Your task to perform on an android device: Search for sushi restaurants on Maps Image 0: 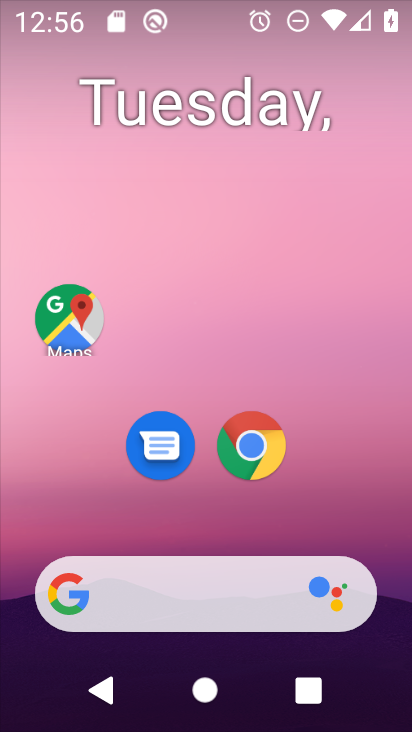
Step 0: drag from (343, 529) to (336, 169)
Your task to perform on an android device: Search for sushi restaurants on Maps Image 1: 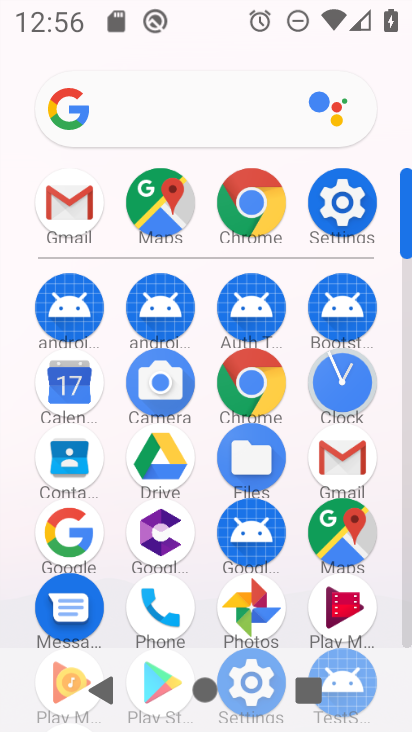
Step 1: click (166, 200)
Your task to perform on an android device: Search for sushi restaurants on Maps Image 2: 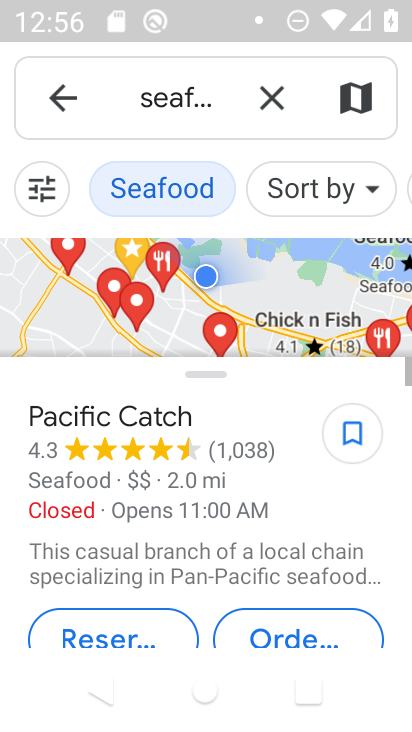
Step 2: click (254, 91)
Your task to perform on an android device: Search for sushi restaurants on Maps Image 3: 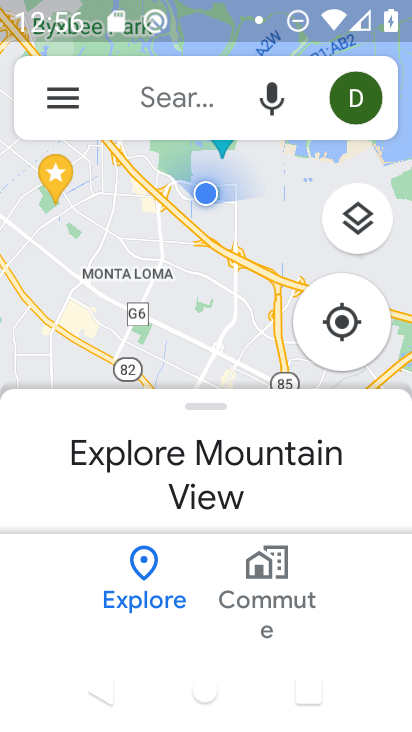
Step 3: click (168, 80)
Your task to perform on an android device: Search for sushi restaurants on Maps Image 4: 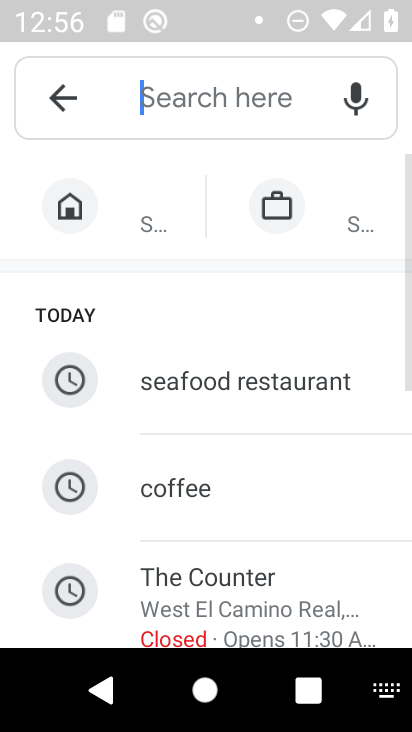
Step 4: drag from (247, 560) to (308, 254)
Your task to perform on an android device: Search for sushi restaurants on Maps Image 5: 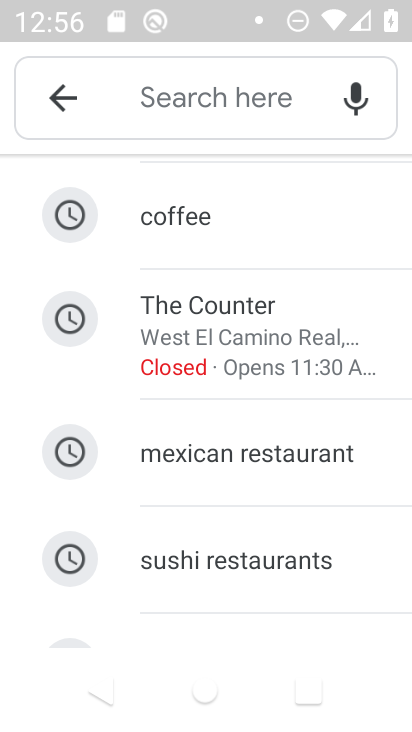
Step 5: click (167, 555)
Your task to perform on an android device: Search for sushi restaurants on Maps Image 6: 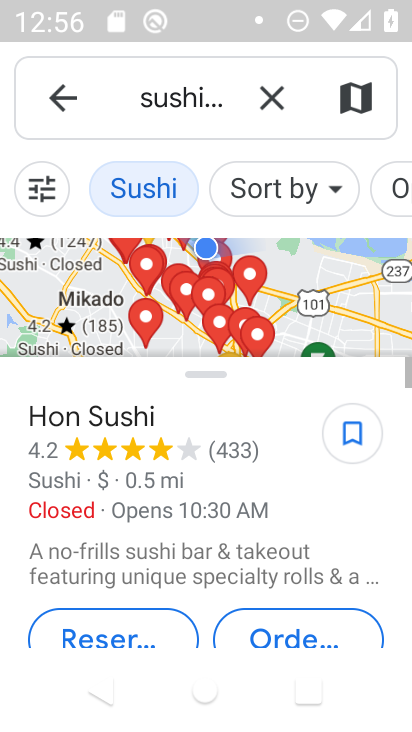
Step 6: task complete